Your task to perform on an android device: turn notification dots on Image 0: 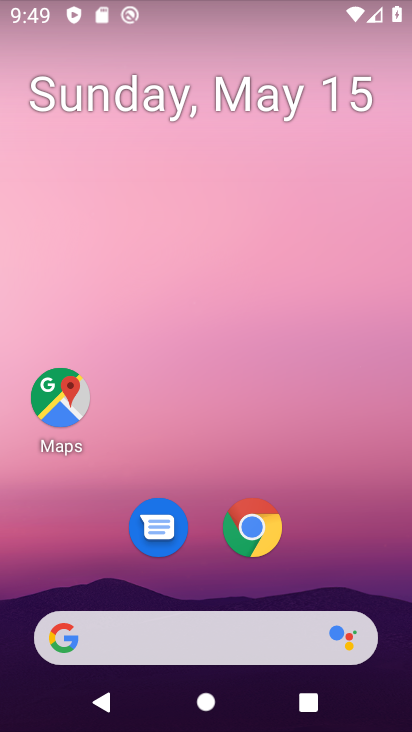
Step 0: click (264, 111)
Your task to perform on an android device: turn notification dots on Image 1: 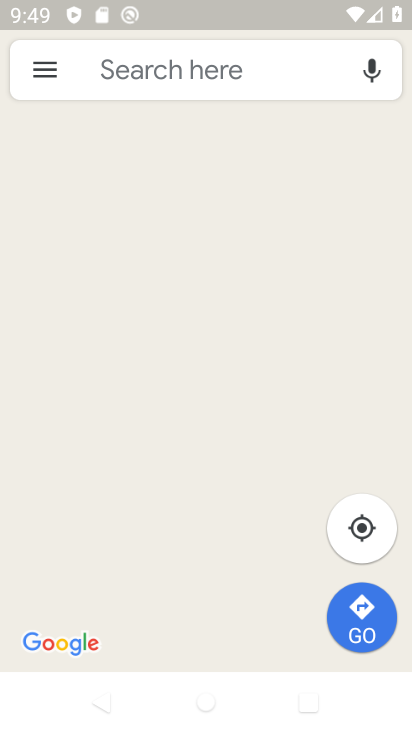
Step 1: press home button
Your task to perform on an android device: turn notification dots on Image 2: 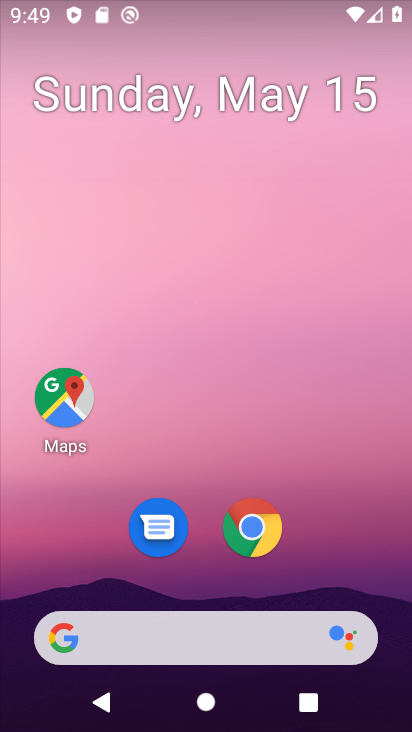
Step 2: drag from (88, 603) to (201, 164)
Your task to perform on an android device: turn notification dots on Image 3: 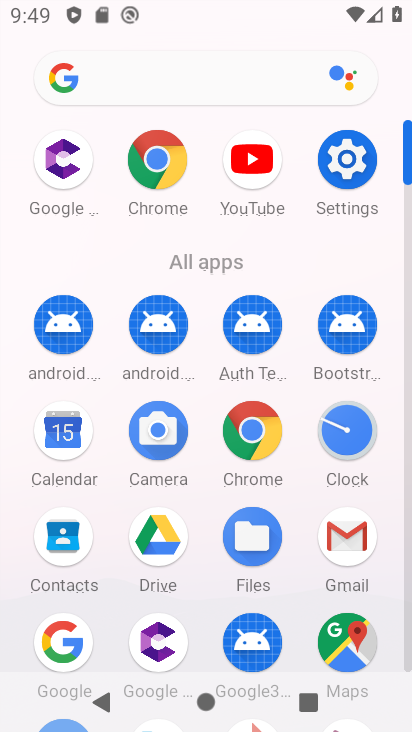
Step 3: drag from (218, 614) to (284, 315)
Your task to perform on an android device: turn notification dots on Image 4: 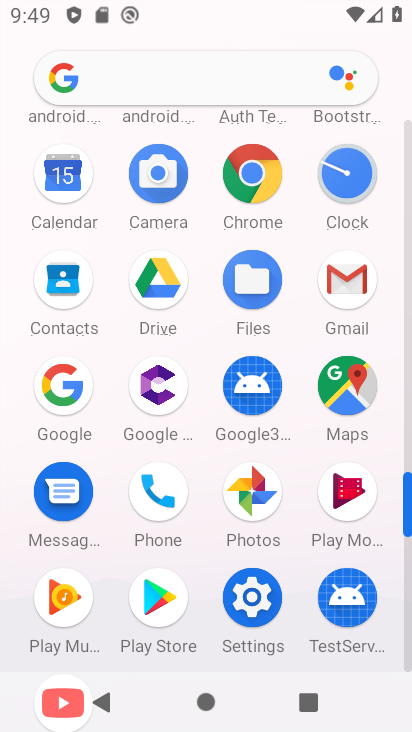
Step 4: click (241, 600)
Your task to perform on an android device: turn notification dots on Image 5: 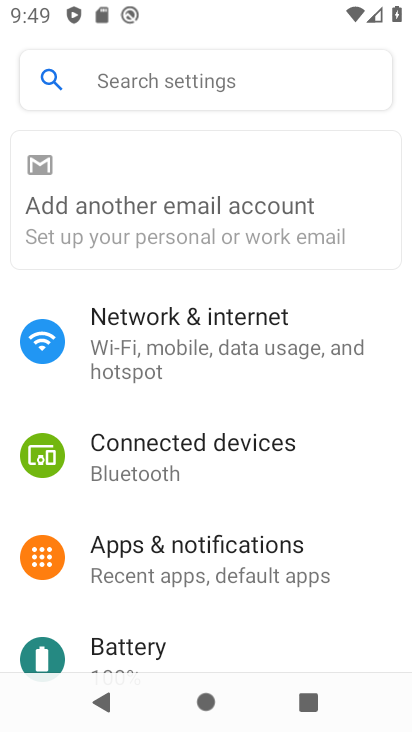
Step 5: drag from (161, 603) to (273, 272)
Your task to perform on an android device: turn notification dots on Image 6: 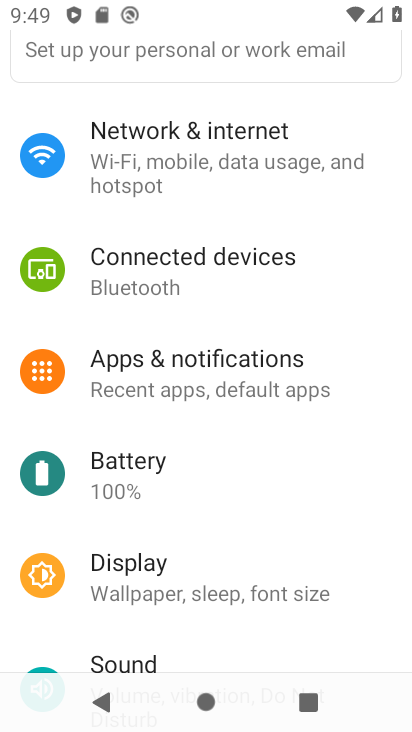
Step 6: drag from (193, 589) to (228, 332)
Your task to perform on an android device: turn notification dots on Image 7: 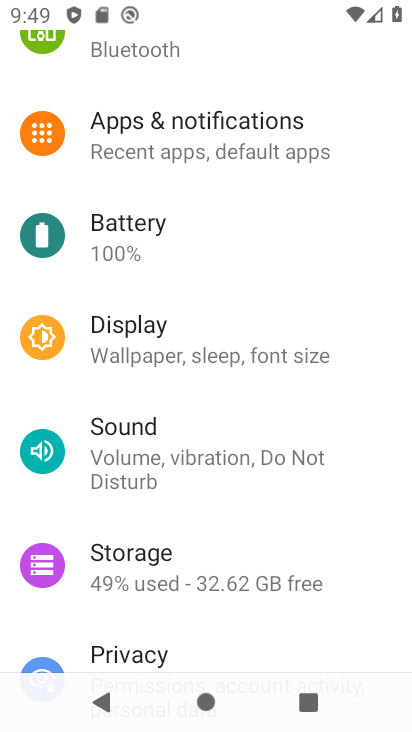
Step 7: click (245, 135)
Your task to perform on an android device: turn notification dots on Image 8: 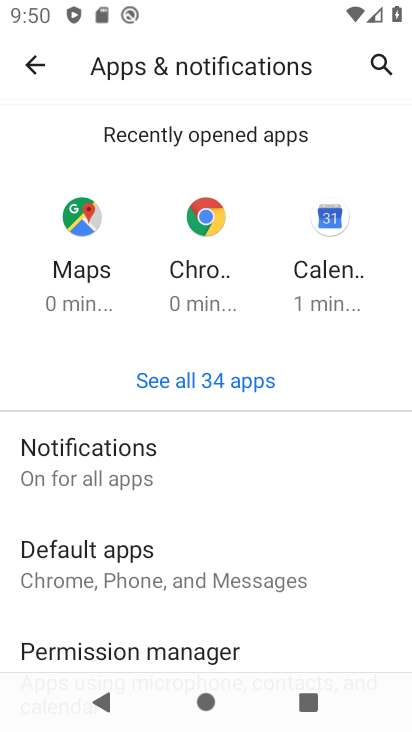
Step 8: click (142, 457)
Your task to perform on an android device: turn notification dots on Image 9: 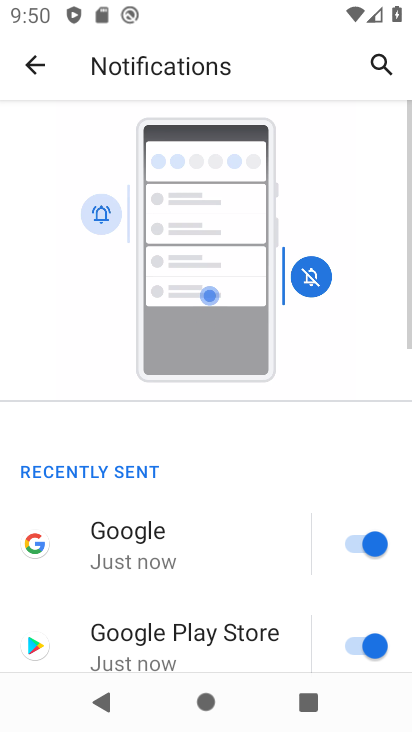
Step 9: drag from (163, 665) to (341, 204)
Your task to perform on an android device: turn notification dots on Image 10: 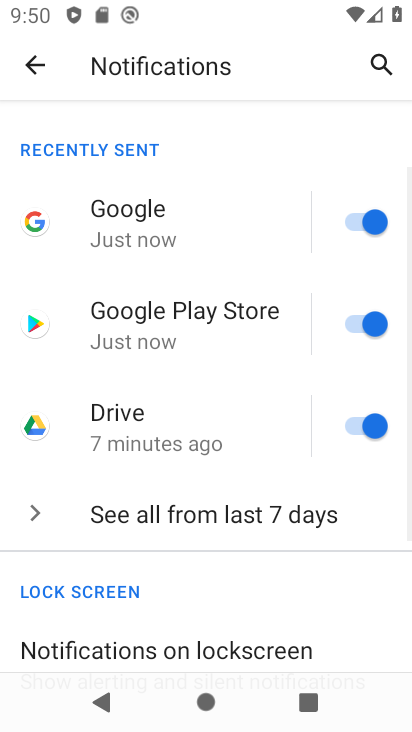
Step 10: drag from (267, 503) to (353, 232)
Your task to perform on an android device: turn notification dots on Image 11: 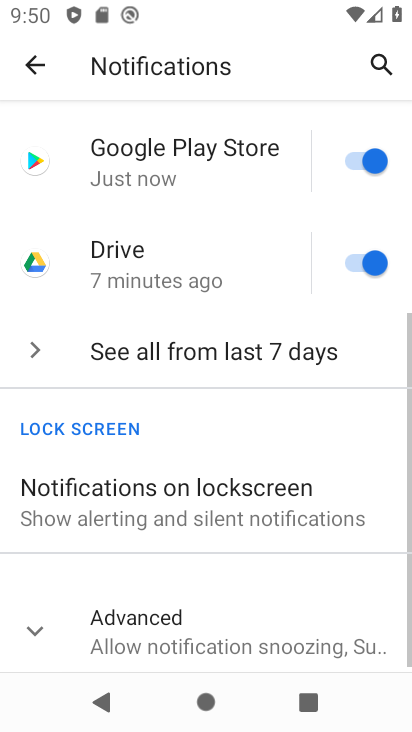
Step 11: click (227, 643)
Your task to perform on an android device: turn notification dots on Image 12: 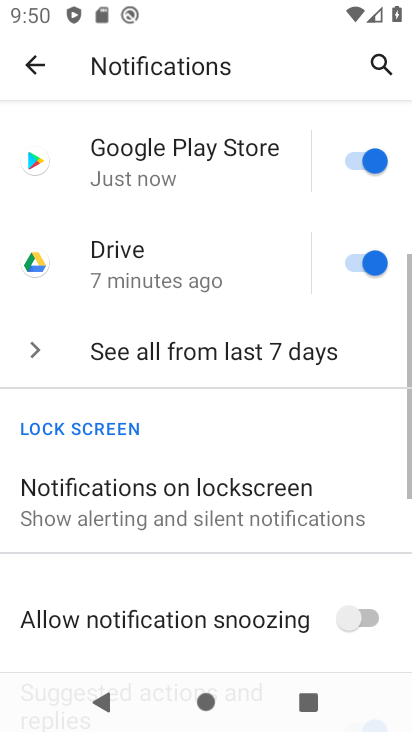
Step 12: drag from (222, 644) to (411, 298)
Your task to perform on an android device: turn notification dots on Image 13: 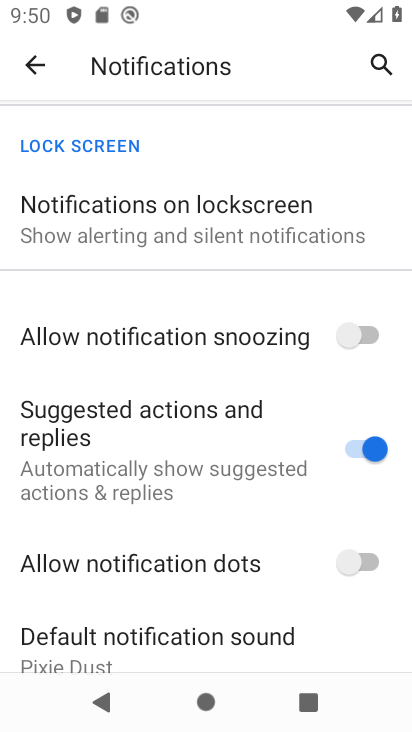
Step 13: click (389, 556)
Your task to perform on an android device: turn notification dots on Image 14: 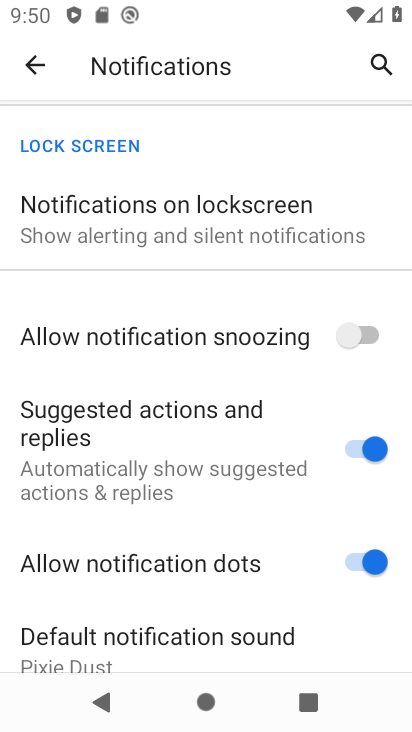
Step 14: task complete